Your task to perform on an android device: change the clock style Image 0: 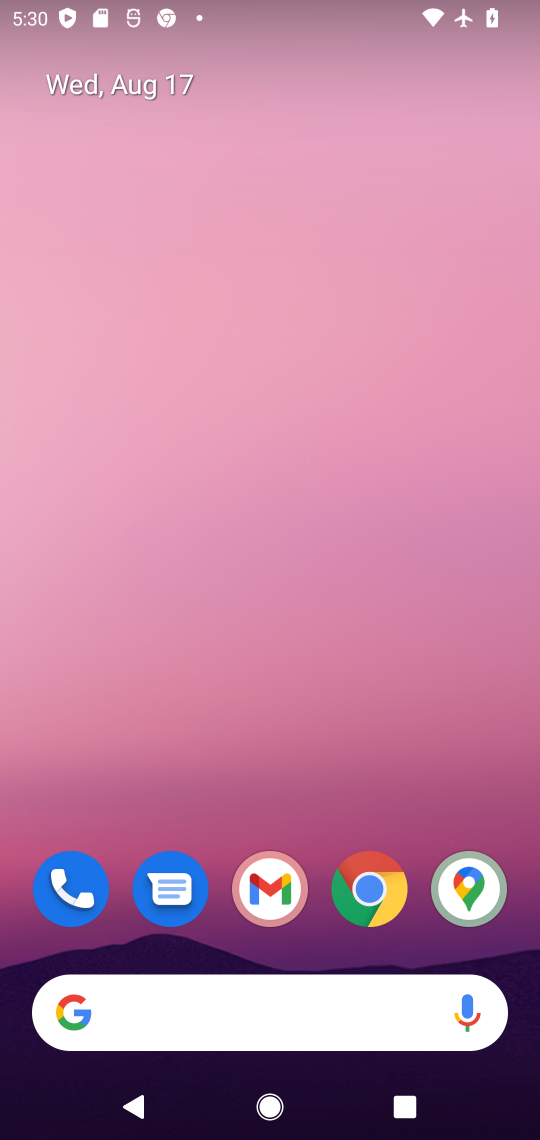
Step 0: drag from (307, 786) to (242, 80)
Your task to perform on an android device: change the clock style Image 1: 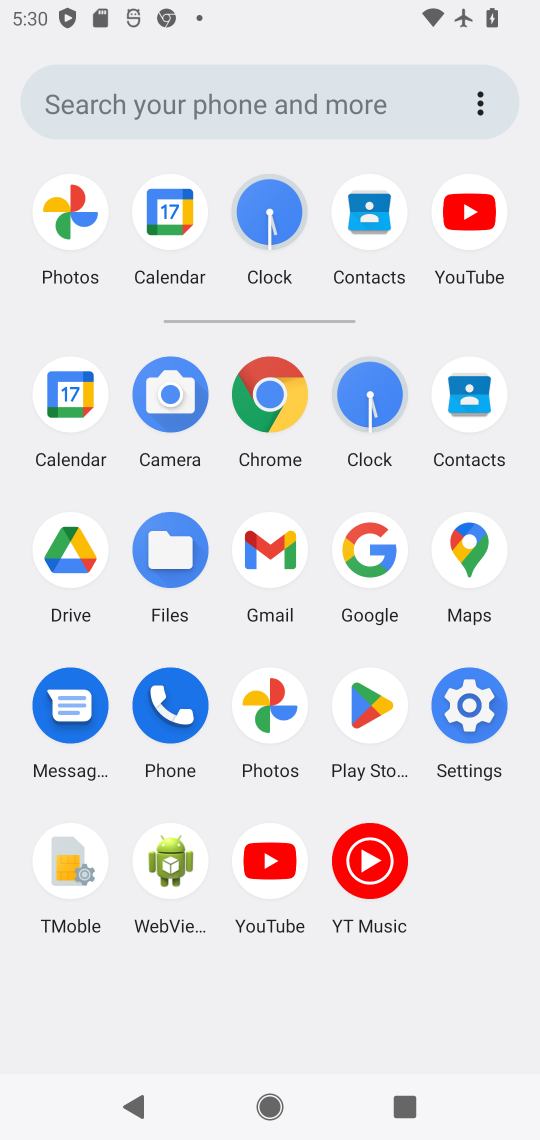
Step 1: click (261, 216)
Your task to perform on an android device: change the clock style Image 2: 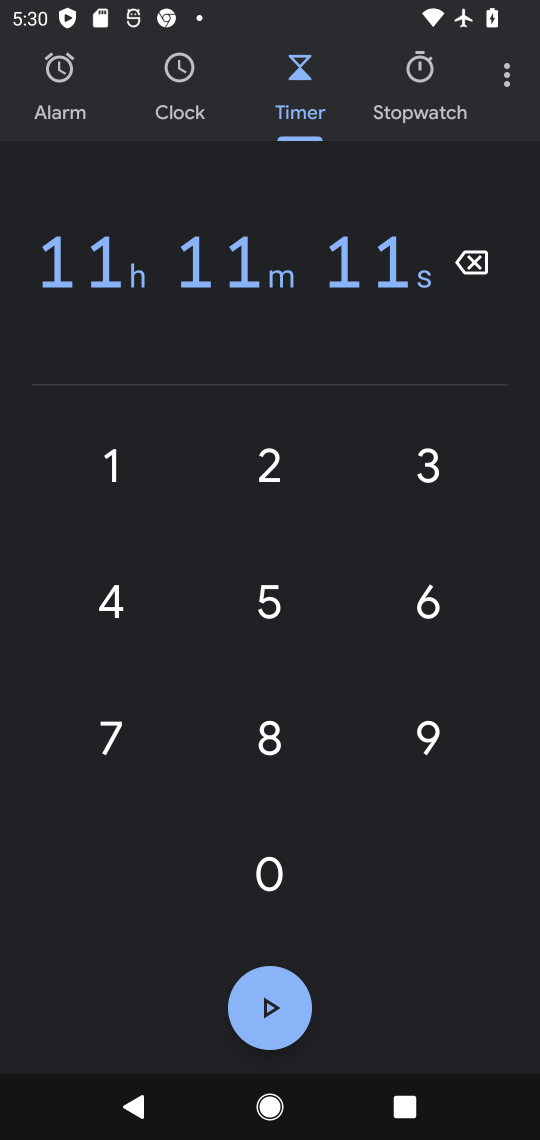
Step 2: click (500, 85)
Your task to perform on an android device: change the clock style Image 3: 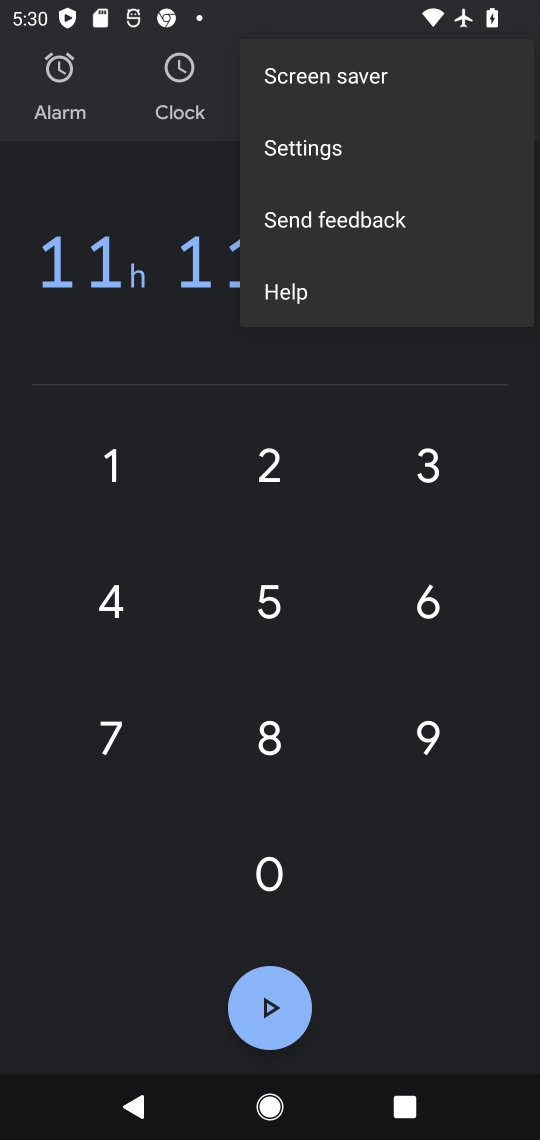
Step 3: click (292, 156)
Your task to perform on an android device: change the clock style Image 4: 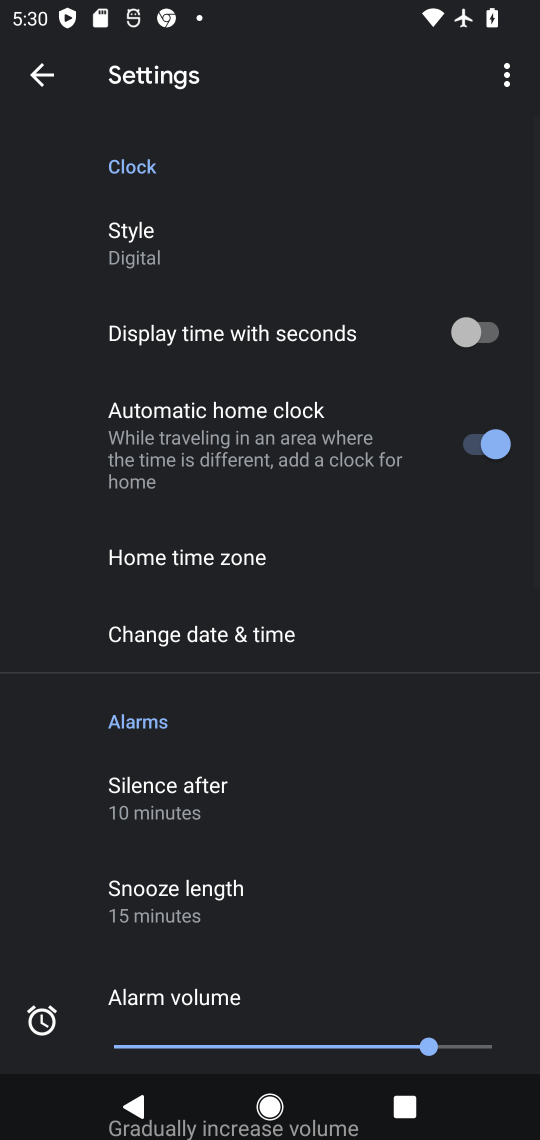
Step 4: click (124, 248)
Your task to perform on an android device: change the clock style Image 5: 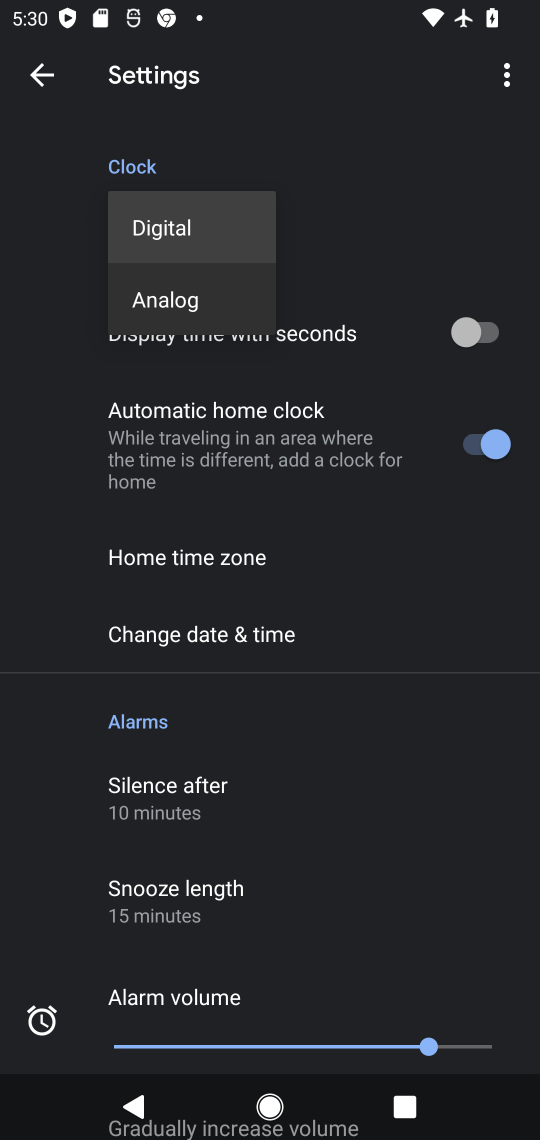
Step 5: click (172, 297)
Your task to perform on an android device: change the clock style Image 6: 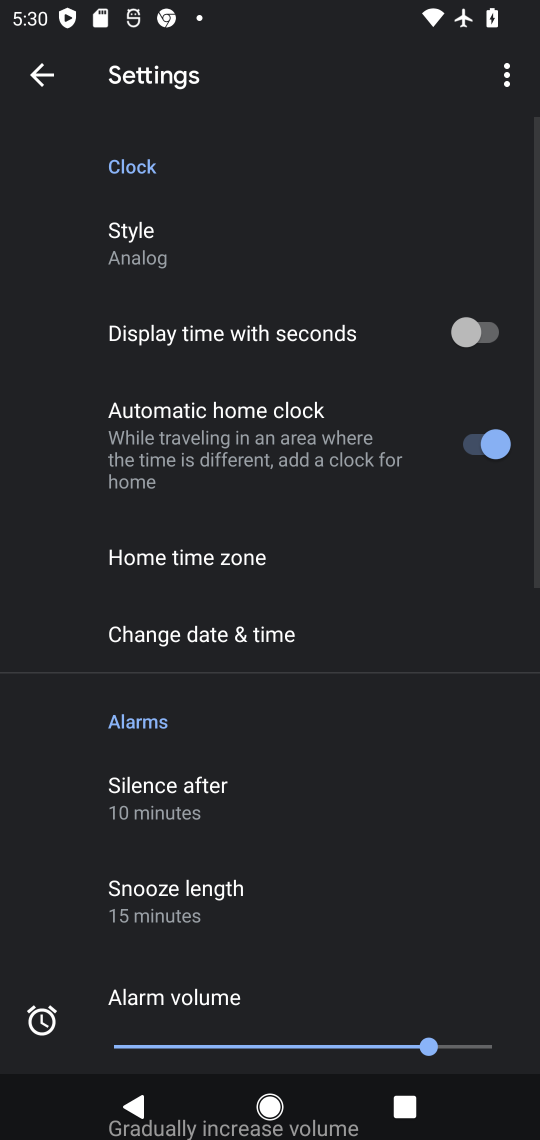
Step 6: task complete